Your task to perform on an android device: uninstall "LiveIn - Share Your Moment" Image 0: 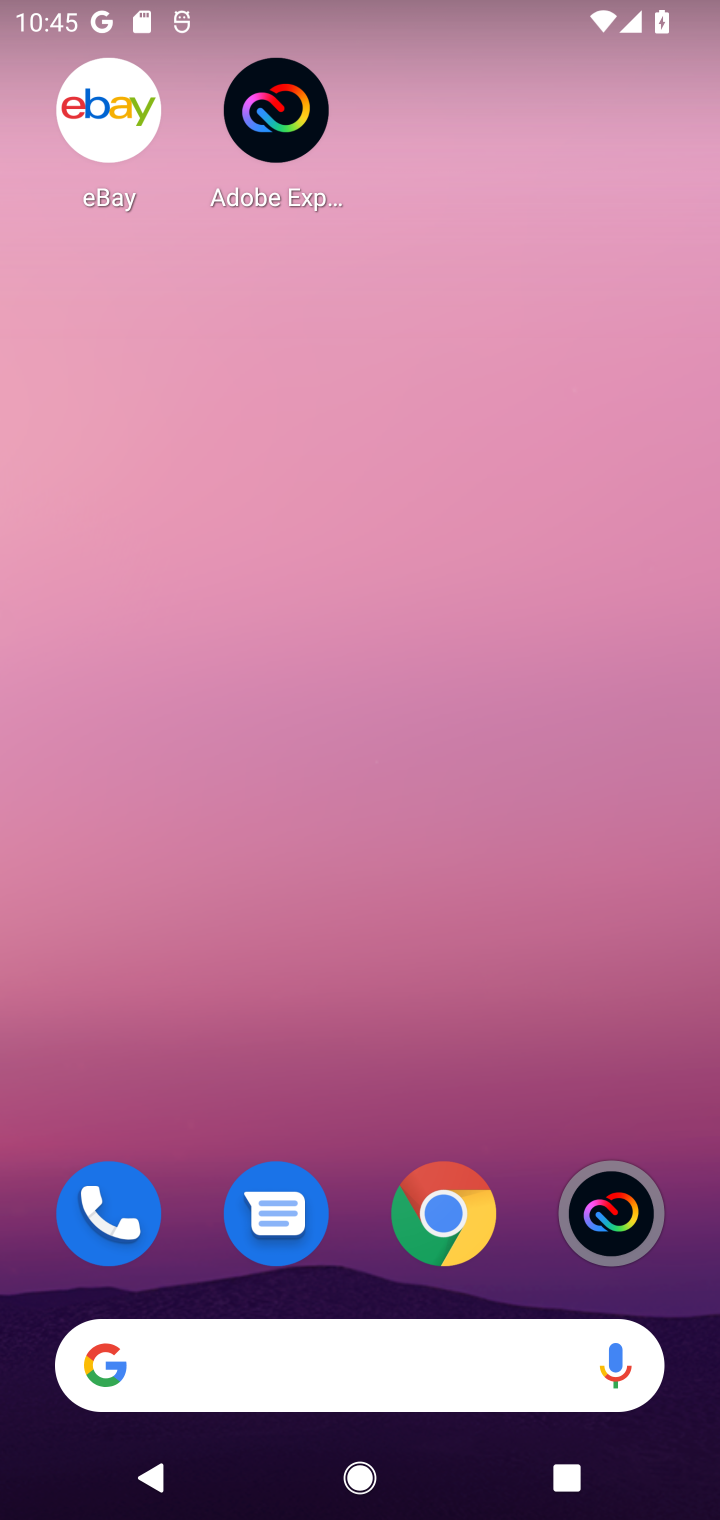
Step 0: press home button
Your task to perform on an android device: uninstall "LiveIn - Share Your Moment" Image 1: 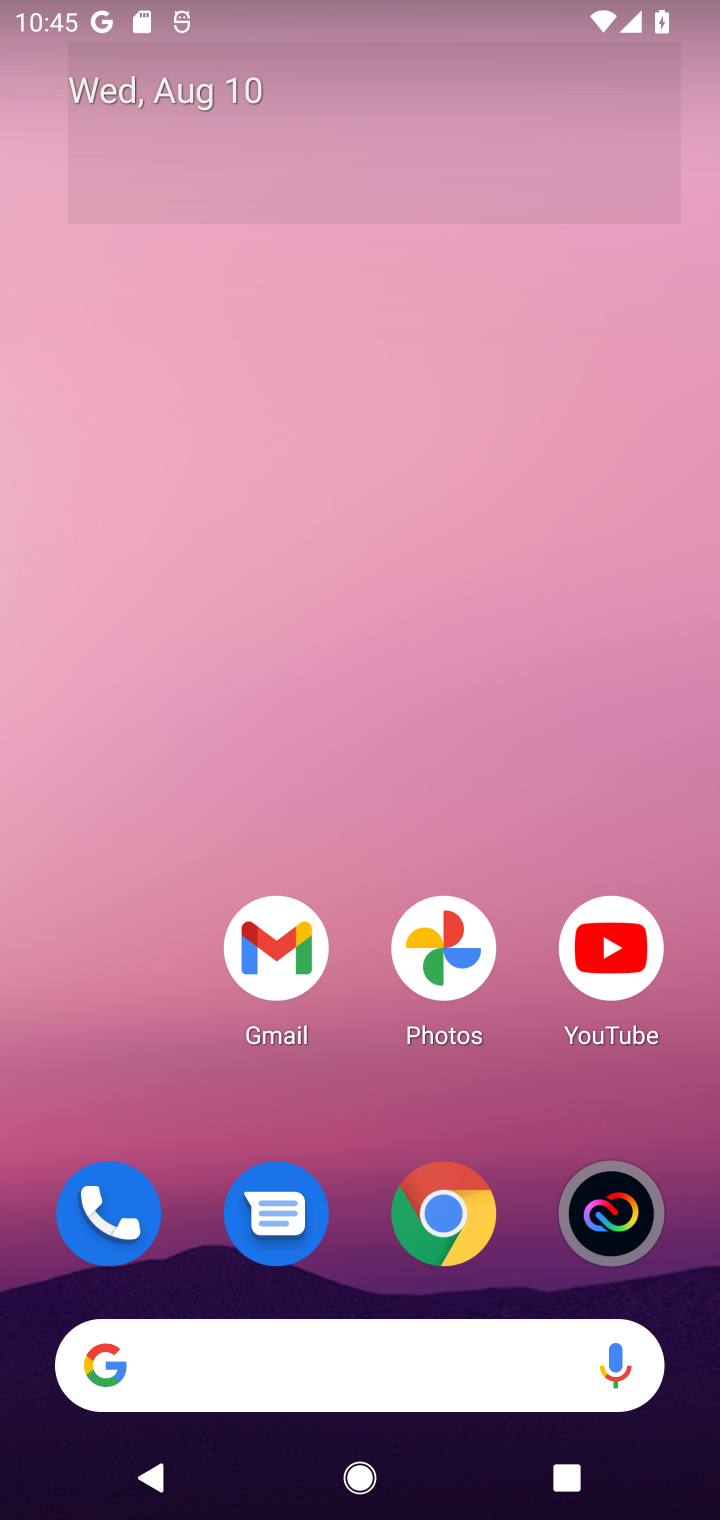
Step 1: drag from (281, 1305) to (274, 198)
Your task to perform on an android device: uninstall "LiveIn - Share Your Moment" Image 2: 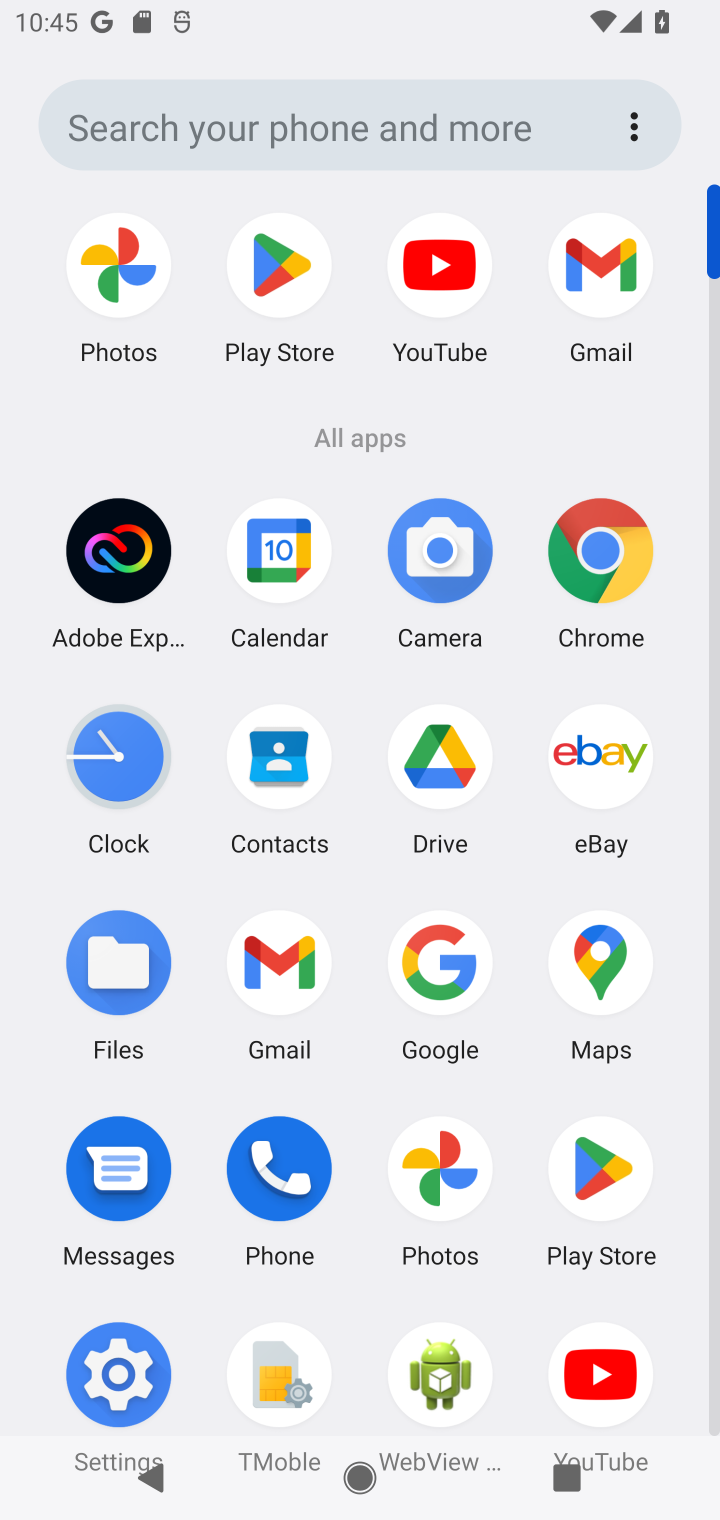
Step 2: click (274, 263)
Your task to perform on an android device: uninstall "LiveIn - Share Your Moment" Image 3: 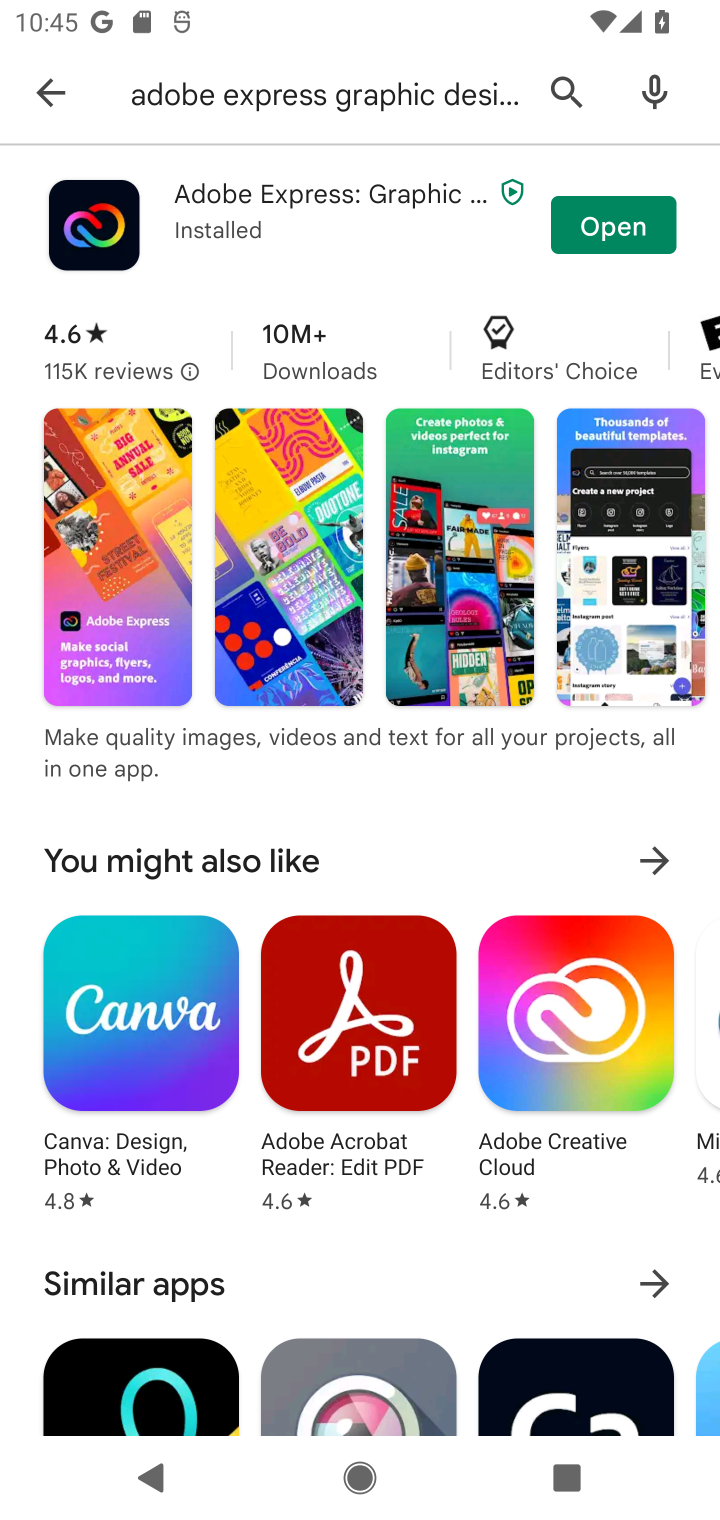
Step 3: press back button
Your task to perform on an android device: uninstall "LiveIn - Share Your Moment" Image 4: 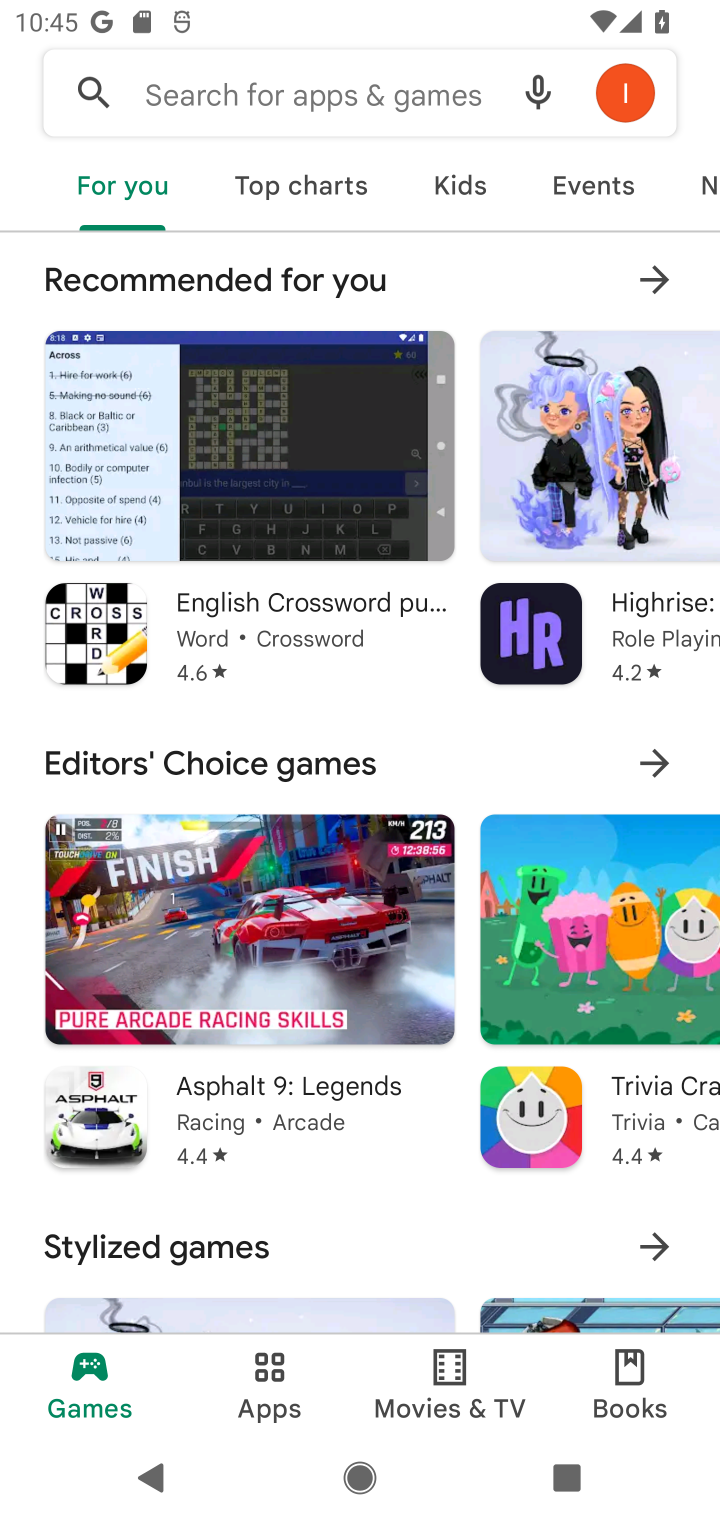
Step 4: click (303, 95)
Your task to perform on an android device: uninstall "LiveIn - Share Your Moment" Image 5: 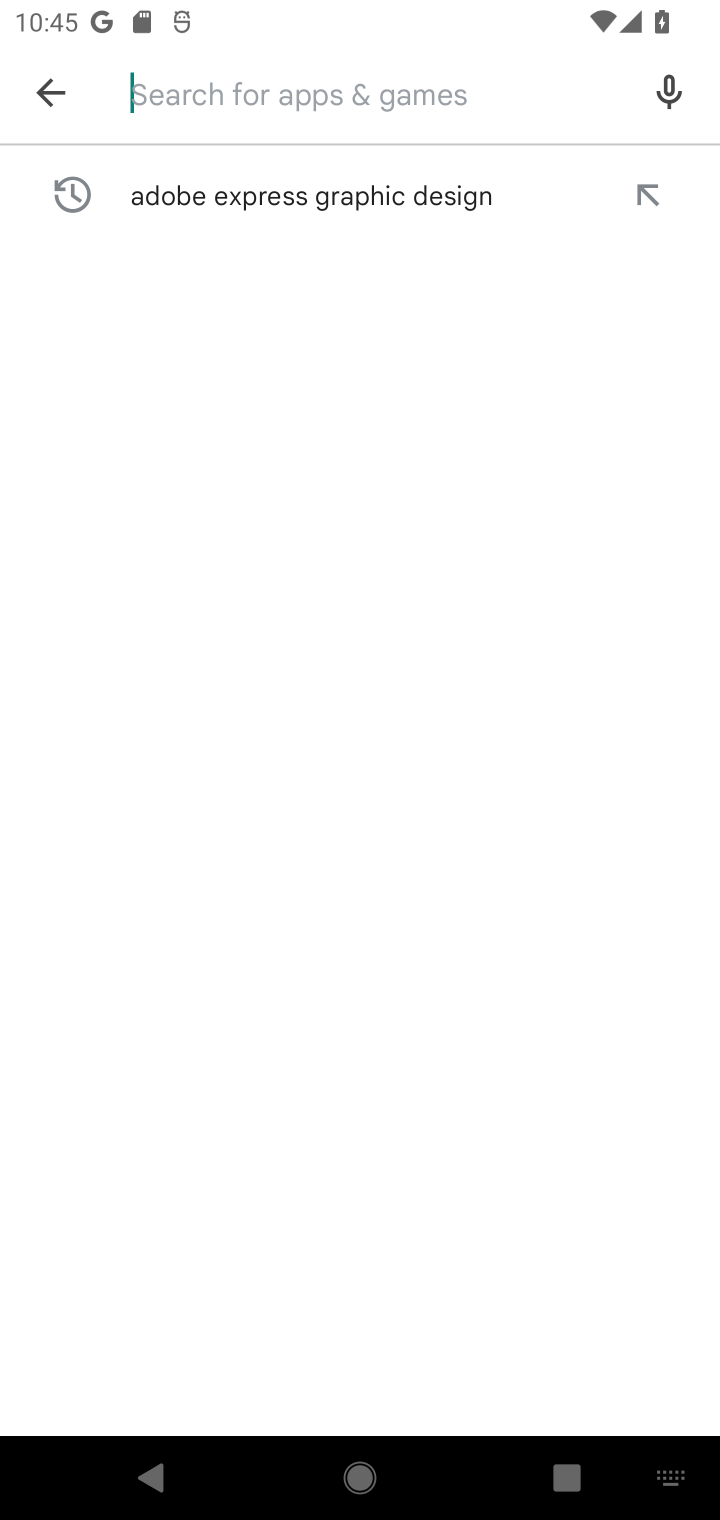
Step 5: click (297, 93)
Your task to perform on an android device: uninstall "LiveIn - Share Your Moment" Image 6: 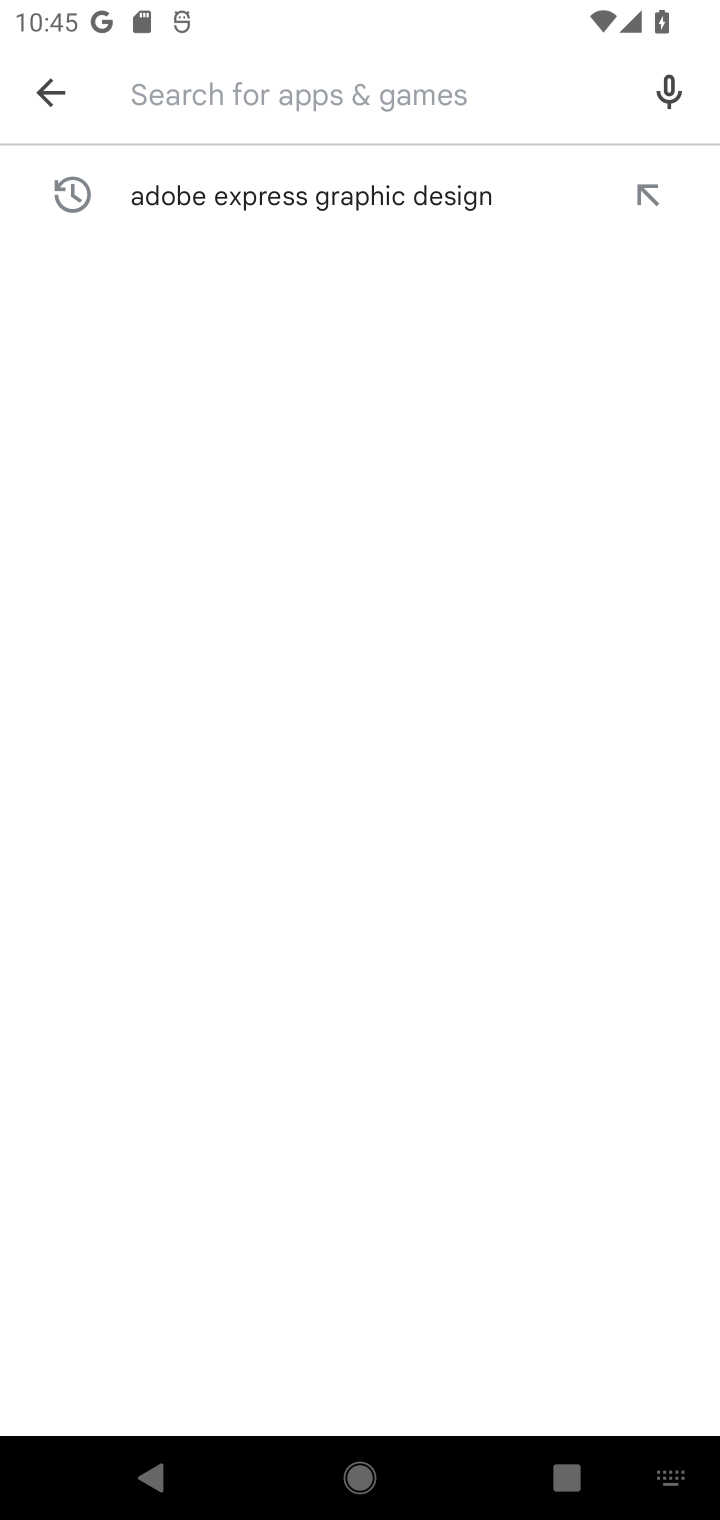
Step 6: type "LiveIn - Share Your Moment"
Your task to perform on an android device: uninstall "LiveIn - Share Your Moment" Image 7: 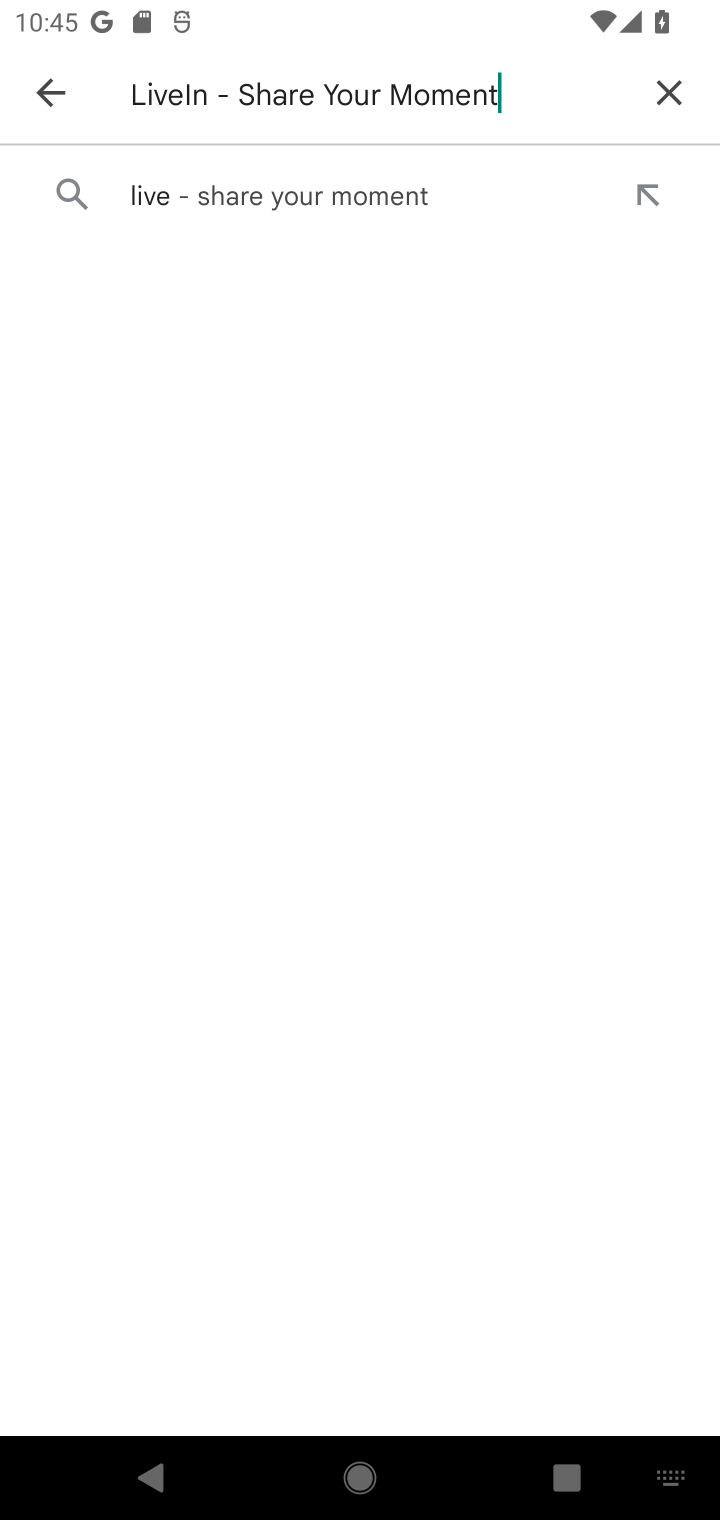
Step 7: click (342, 222)
Your task to perform on an android device: uninstall "LiveIn - Share Your Moment" Image 8: 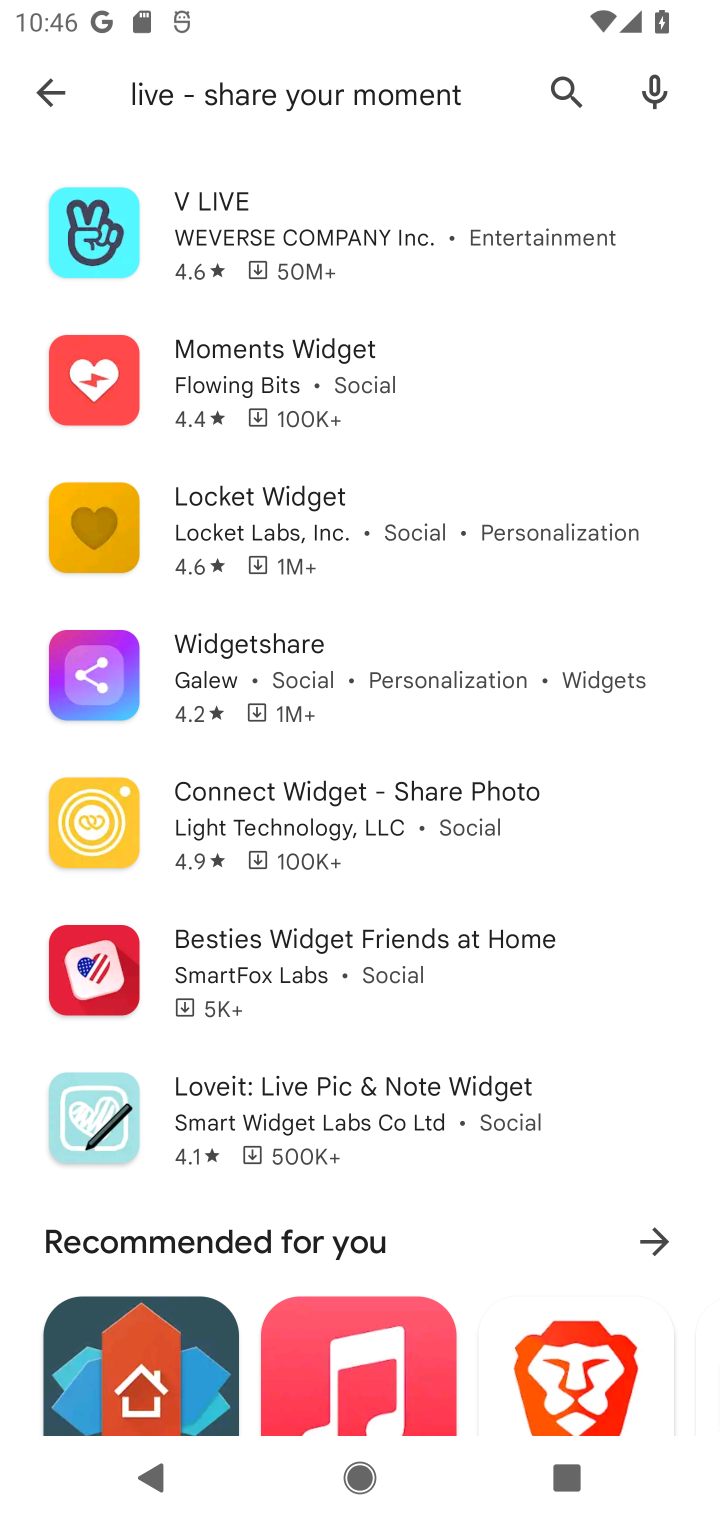
Step 8: task complete